Your task to perform on an android device: turn notification dots off Image 0: 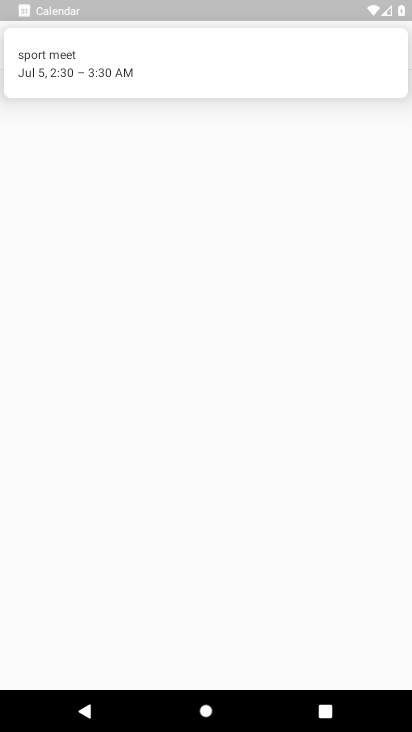
Step 0: press home button
Your task to perform on an android device: turn notification dots off Image 1: 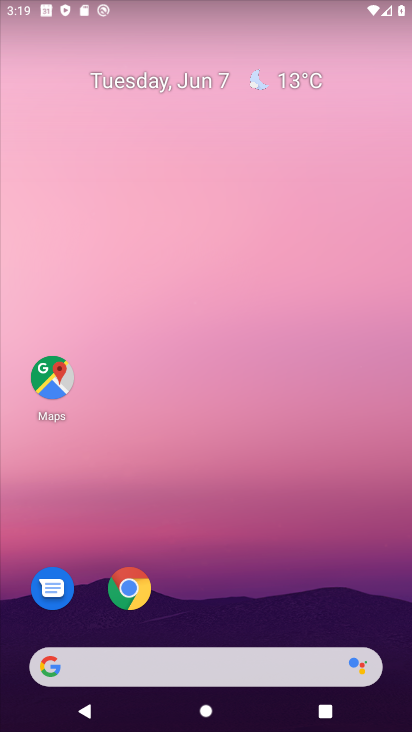
Step 1: drag from (267, 604) to (274, 90)
Your task to perform on an android device: turn notification dots off Image 2: 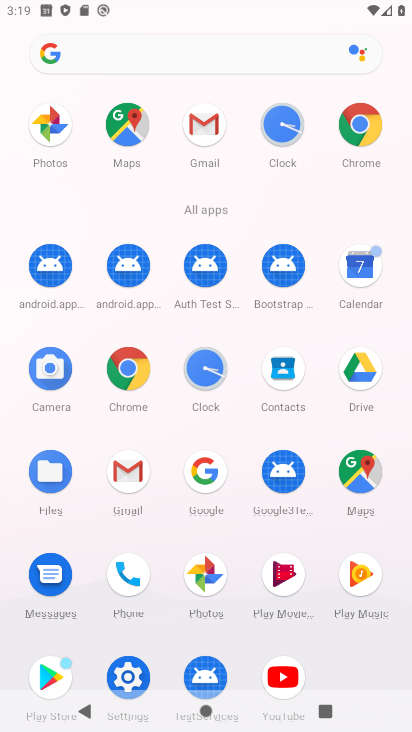
Step 2: drag from (130, 670) to (77, 184)
Your task to perform on an android device: turn notification dots off Image 3: 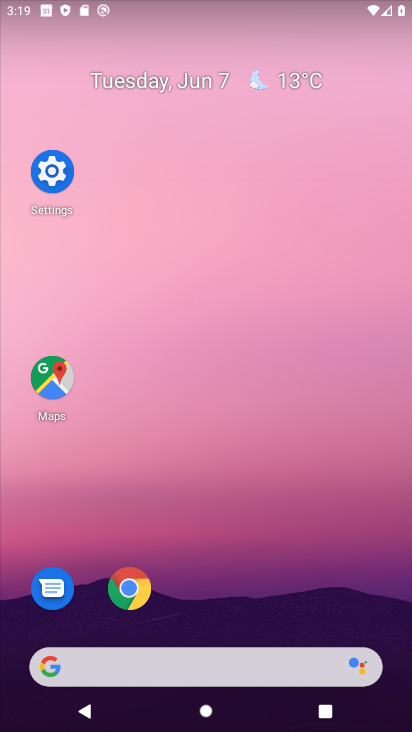
Step 3: click (64, 172)
Your task to perform on an android device: turn notification dots off Image 4: 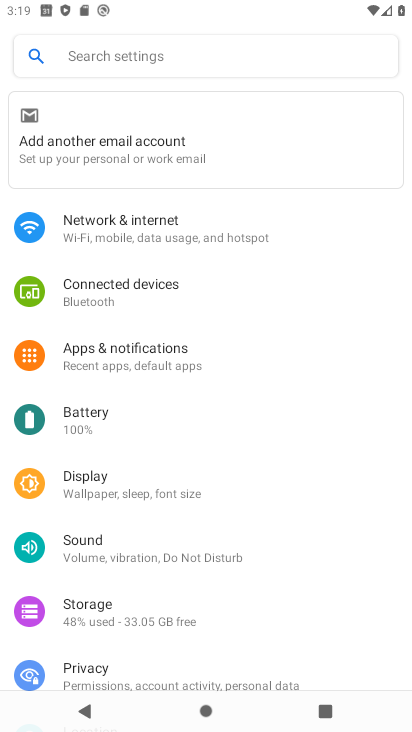
Step 4: click (199, 349)
Your task to perform on an android device: turn notification dots off Image 5: 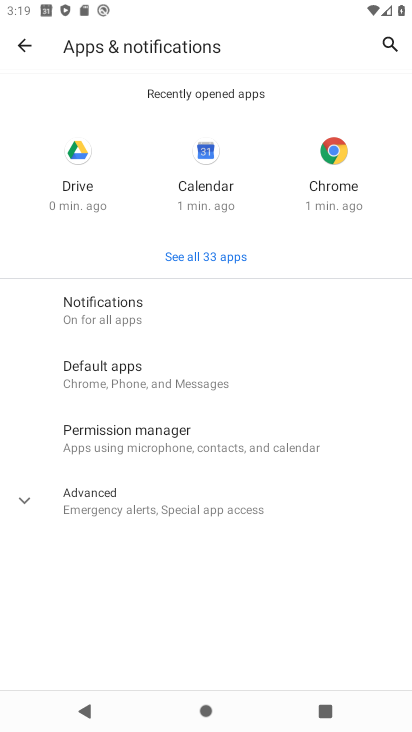
Step 5: click (185, 321)
Your task to perform on an android device: turn notification dots off Image 6: 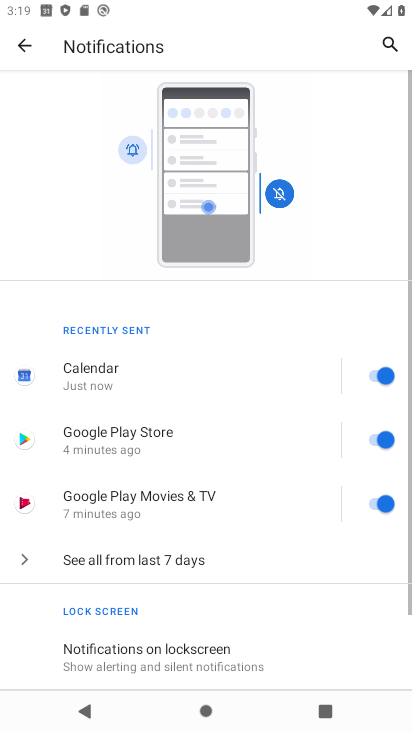
Step 6: drag from (214, 326) to (211, 205)
Your task to perform on an android device: turn notification dots off Image 7: 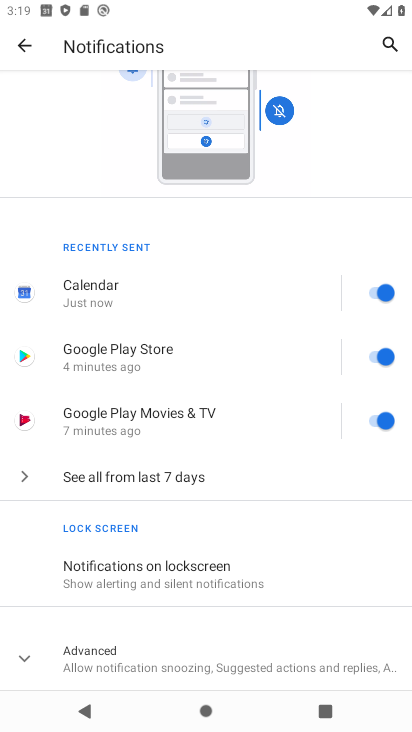
Step 7: click (188, 670)
Your task to perform on an android device: turn notification dots off Image 8: 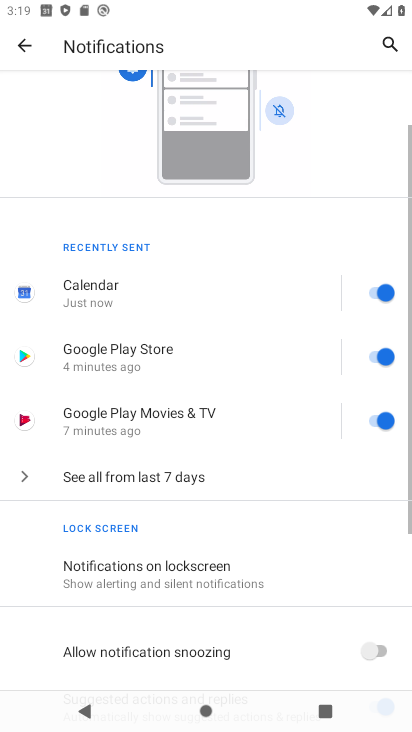
Step 8: drag from (185, 630) to (245, 256)
Your task to perform on an android device: turn notification dots off Image 9: 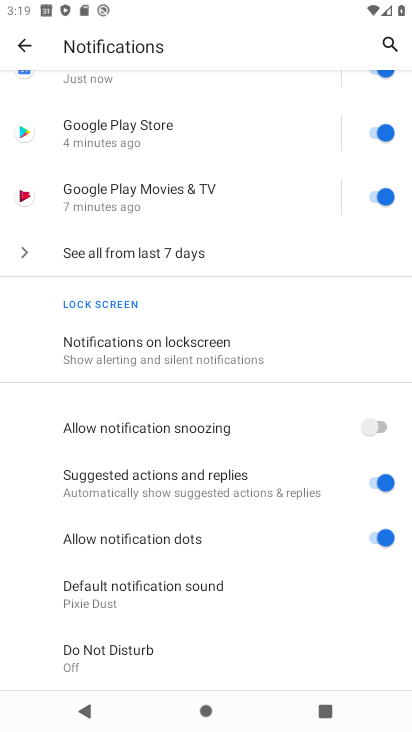
Step 9: click (390, 529)
Your task to perform on an android device: turn notification dots off Image 10: 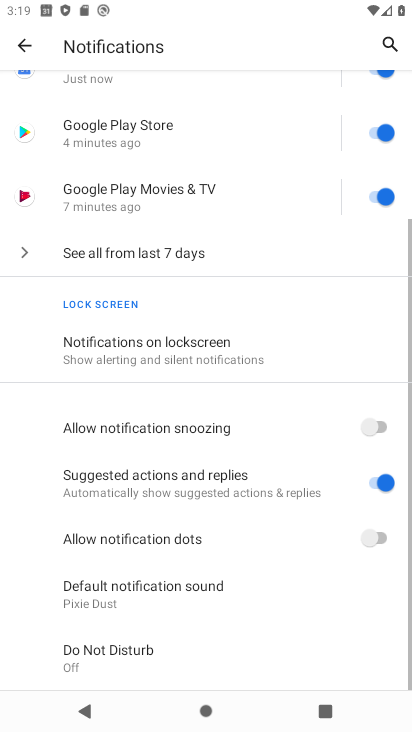
Step 10: task complete